Your task to perform on an android device: Turn off the flashlight Image 0: 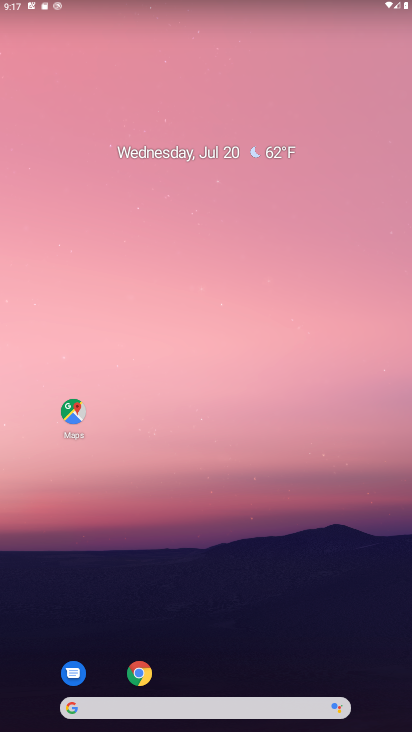
Step 0: drag from (370, 707) to (231, 159)
Your task to perform on an android device: Turn off the flashlight Image 1: 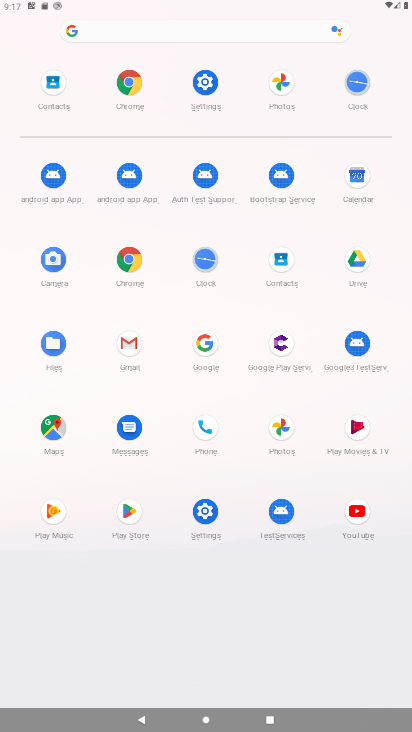
Step 1: click (211, 75)
Your task to perform on an android device: Turn off the flashlight Image 2: 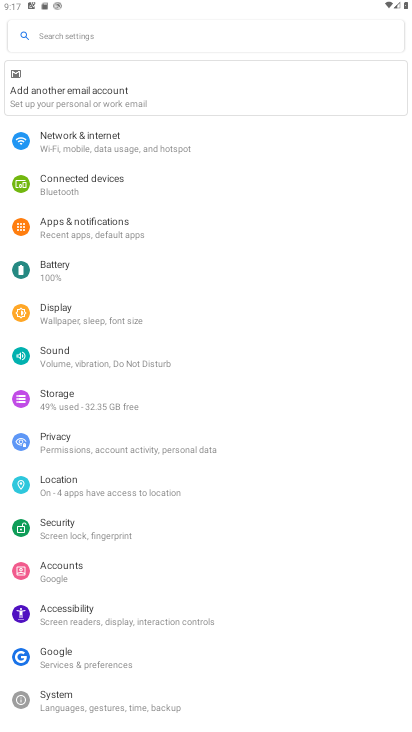
Step 2: click (41, 308)
Your task to perform on an android device: Turn off the flashlight Image 3: 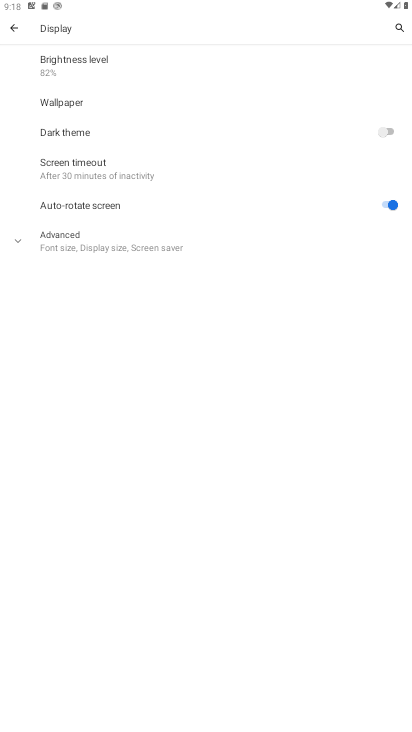
Step 3: click (23, 236)
Your task to perform on an android device: Turn off the flashlight Image 4: 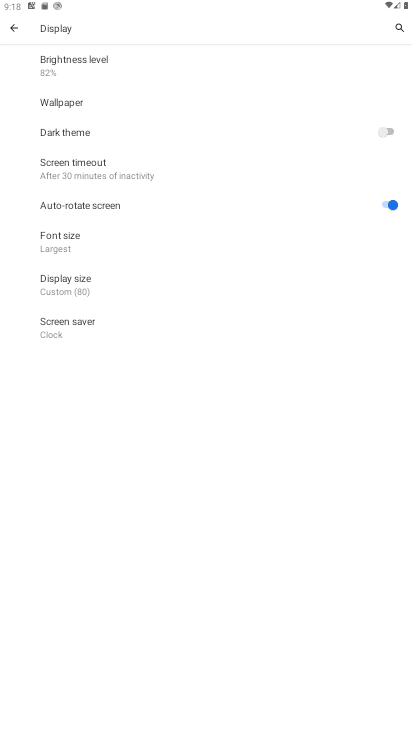
Step 4: task complete